Your task to perform on an android device: toggle airplane mode Image 0: 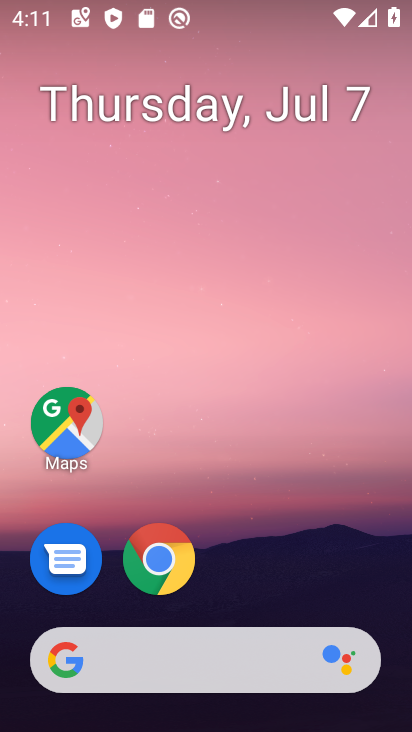
Step 0: drag from (186, 81) to (172, 641)
Your task to perform on an android device: toggle airplane mode Image 1: 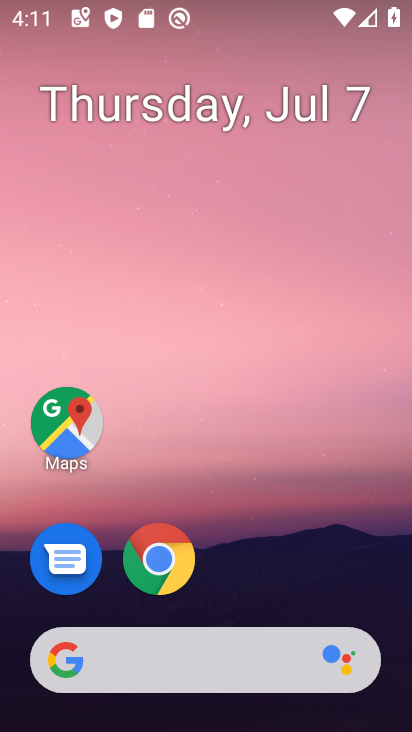
Step 1: drag from (247, 1) to (245, 602)
Your task to perform on an android device: toggle airplane mode Image 2: 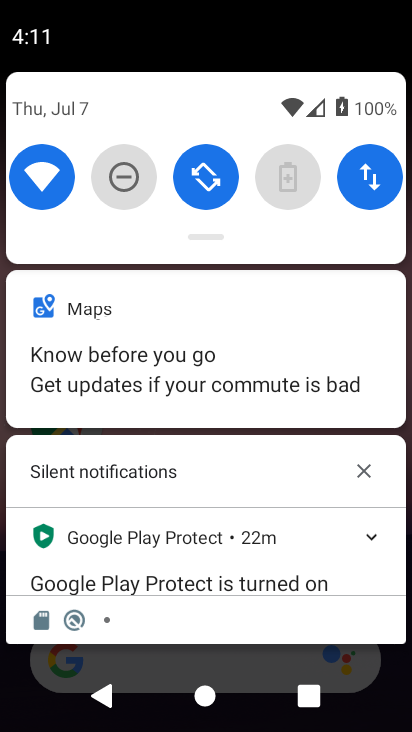
Step 2: click (181, 681)
Your task to perform on an android device: toggle airplane mode Image 3: 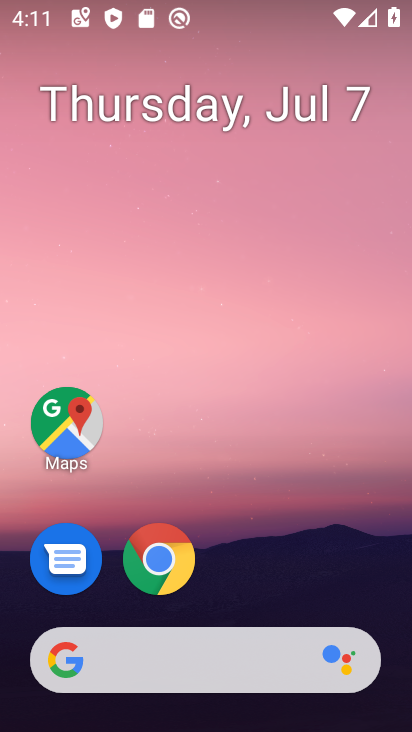
Step 3: drag from (256, 9) to (249, 652)
Your task to perform on an android device: toggle airplane mode Image 4: 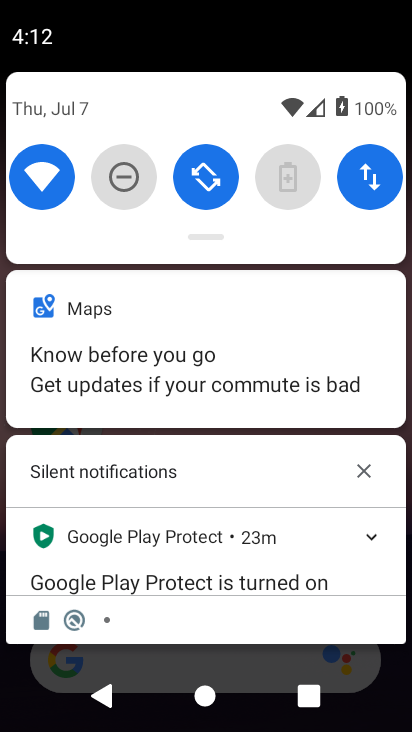
Step 4: drag from (198, 223) to (190, 675)
Your task to perform on an android device: toggle airplane mode Image 5: 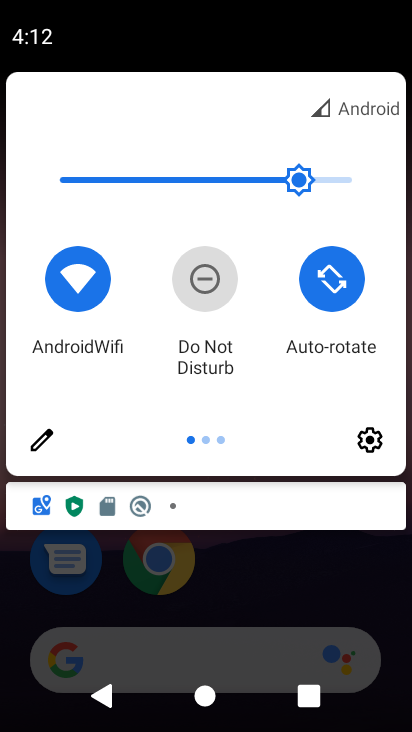
Step 5: drag from (335, 276) to (3, 279)
Your task to perform on an android device: toggle airplane mode Image 6: 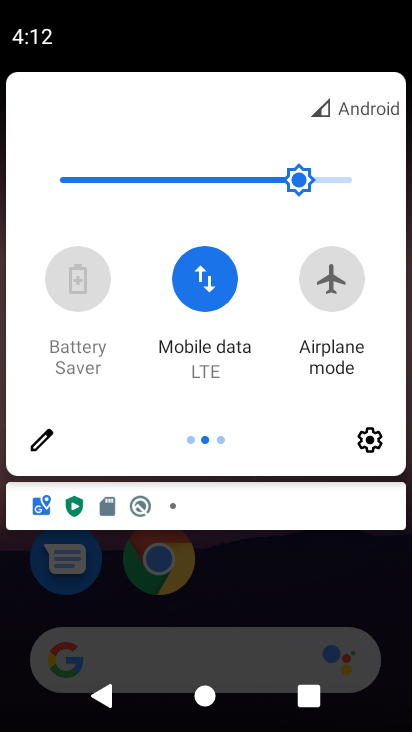
Step 6: click (317, 274)
Your task to perform on an android device: toggle airplane mode Image 7: 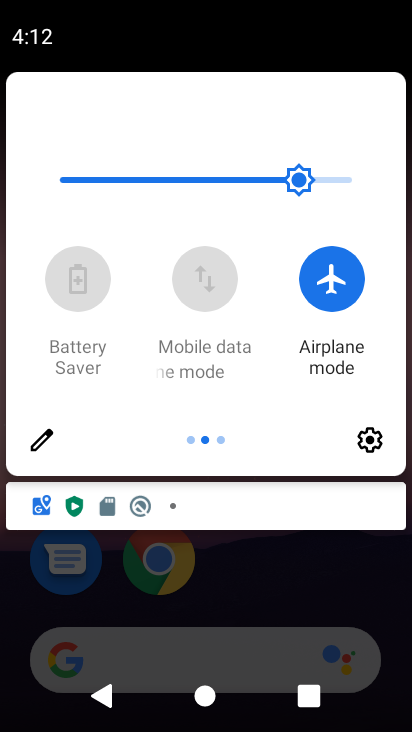
Step 7: task complete